Your task to perform on an android device: Open calendar and show me the second week of next month Image 0: 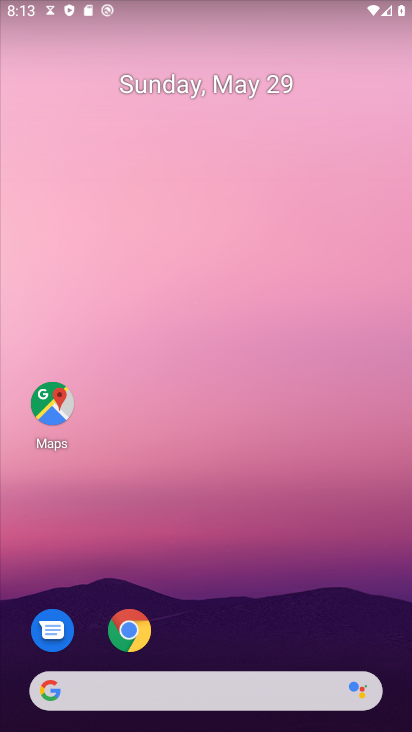
Step 0: click (224, 652)
Your task to perform on an android device: Open calendar and show me the second week of next month Image 1: 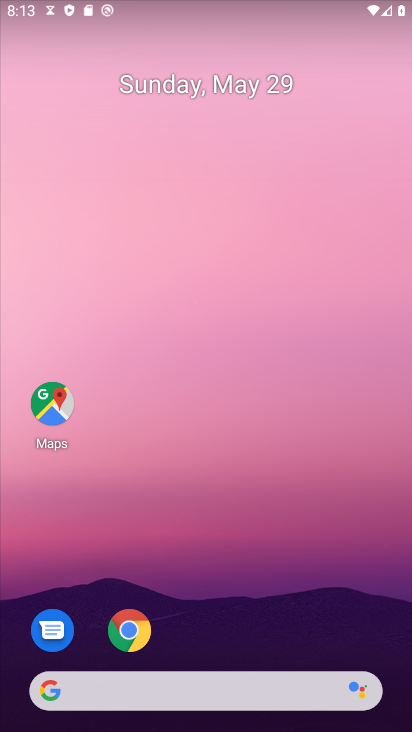
Step 1: drag from (245, 529) to (250, 64)
Your task to perform on an android device: Open calendar and show me the second week of next month Image 2: 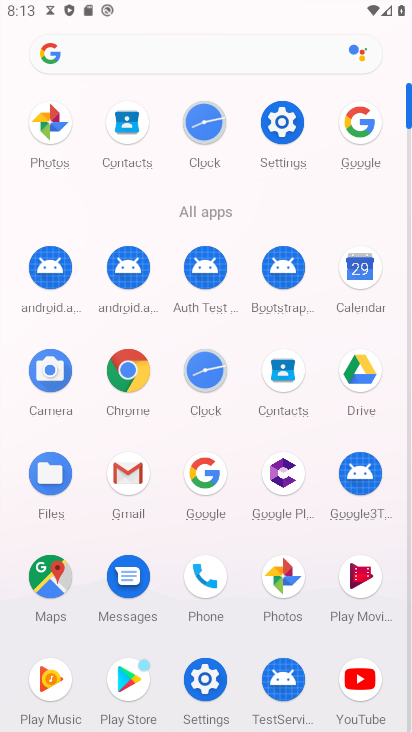
Step 2: click (367, 274)
Your task to perform on an android device: Open calendar and show me the second week of next month Image 3: 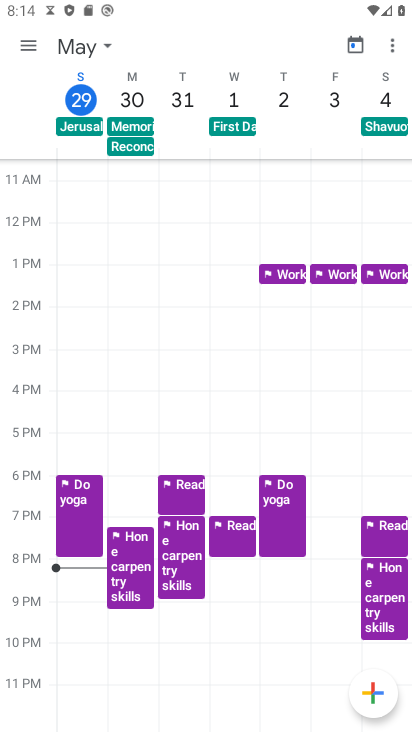
Step 3: task complete